Your task to perform on an android device: Open the calendar app, open the side menu, and click the "Day" option Image 0: 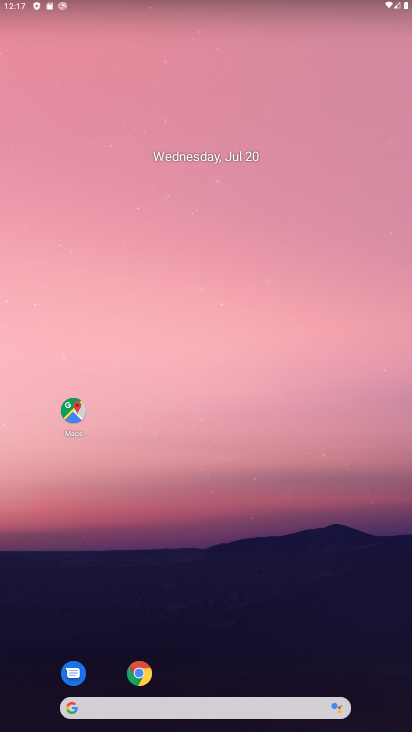
Step 0: drag from (201, 123) to (216, 52)
Your task to perform on an android device: Open the calendar app, open the side menu, and click the "Day" option Image 1: 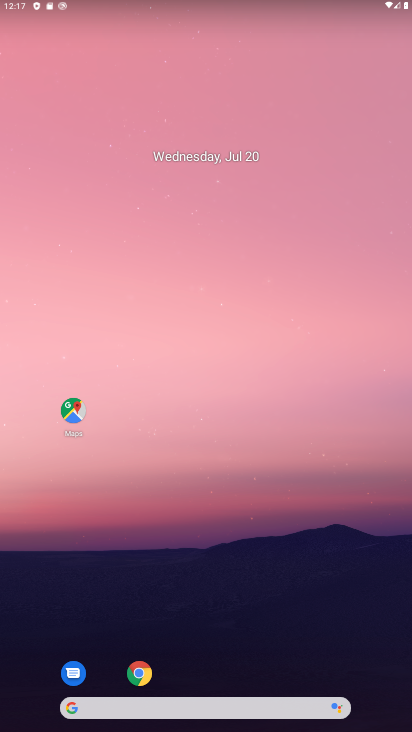
Step 1: drag from (200, 618) to (52, 4)
Your task to perform on an android device: Open the calendar app, open the side menu, and click the "Day" option Image 2: 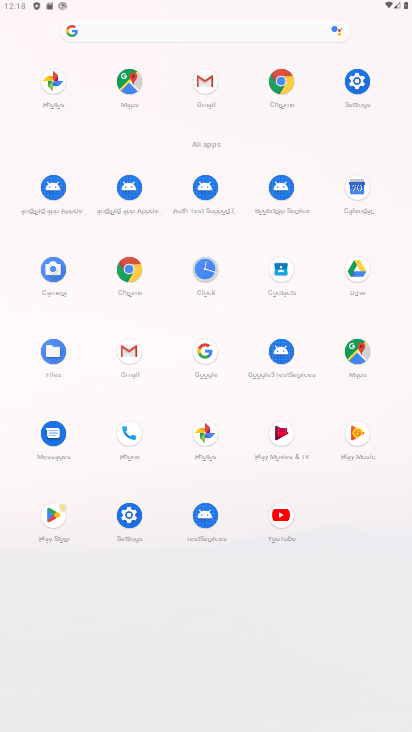
Step 2: click (356, 198)
Your task to perform on an android device: Open the calendar app, open the side menu, and click the "Day" option Image 3: 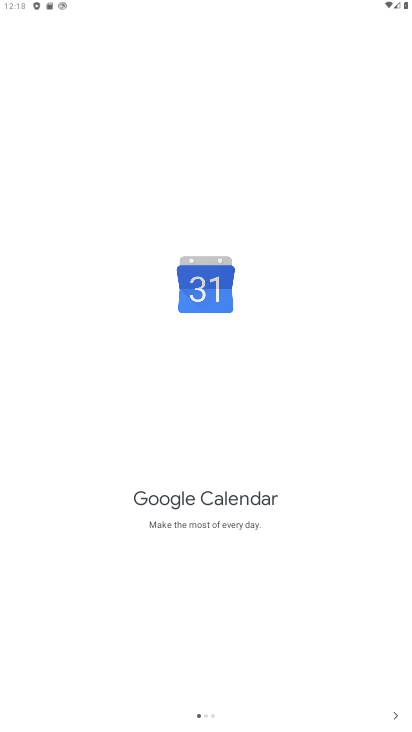
Step 3: click (393, 711)
Your task to perform on an android device: Open the calendar app, open the side menu, and click the "Day" option Image 4: 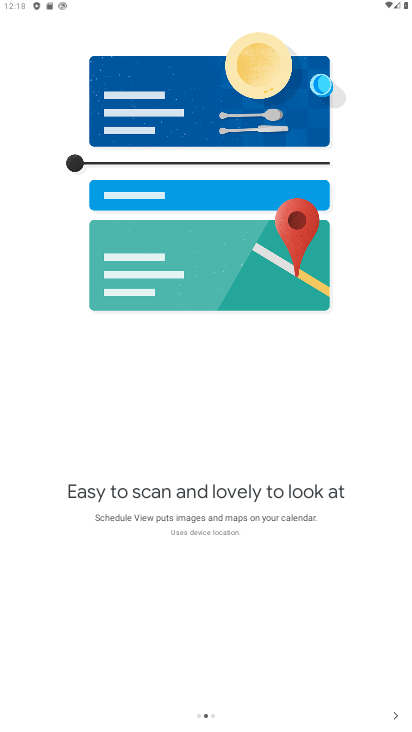
Step 4: click (393, 716)
Your task to perform on an android device: Open the calendar app, open the side menu, and click the "Day" option Image 5: 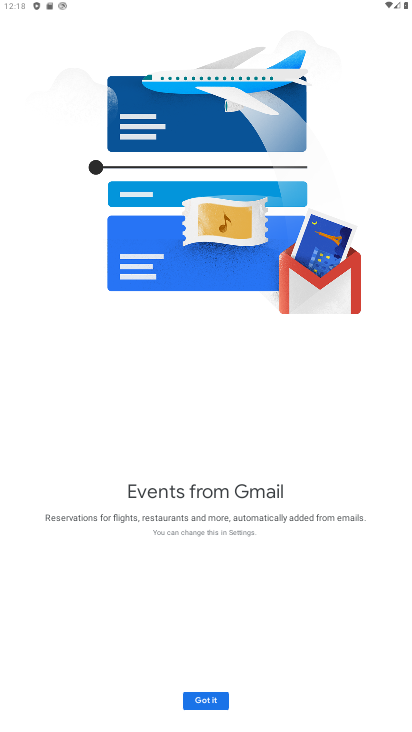
Step 5: click (195, 700)
Your task to perform on an android device: Open the calendar app, open the side menu, and click the "Day" option Image 6: 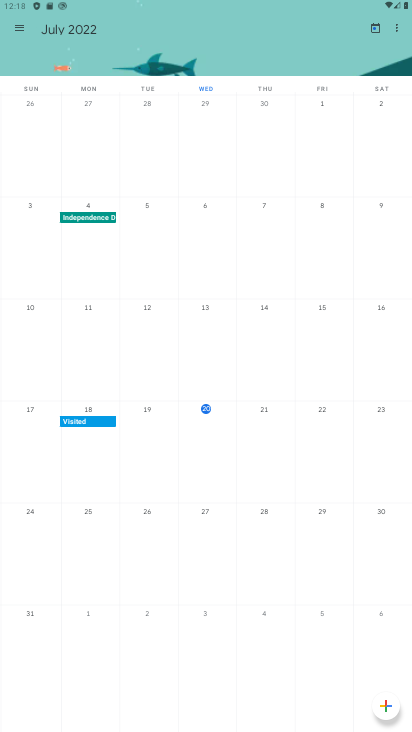
Step 6: click (19, 24)
Your task to perform on an android device: Open the calendar app, open the side menu, and click the "Day" option Image 7: 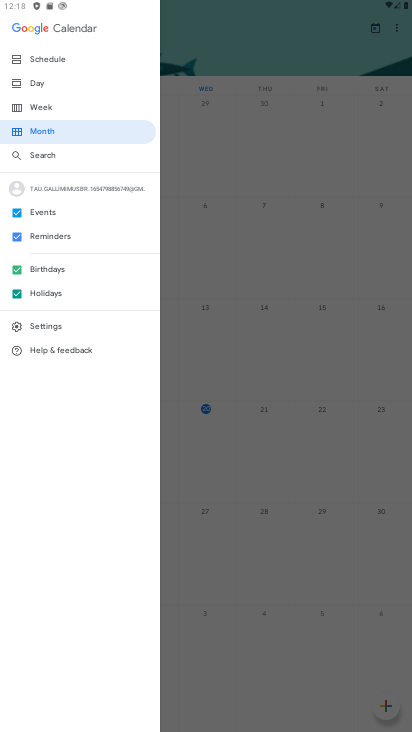
Step 7: click (42, 85)
Your task to perform on an android device: Open the calendar app, open the side menu, and click the "Day" option Image 8: 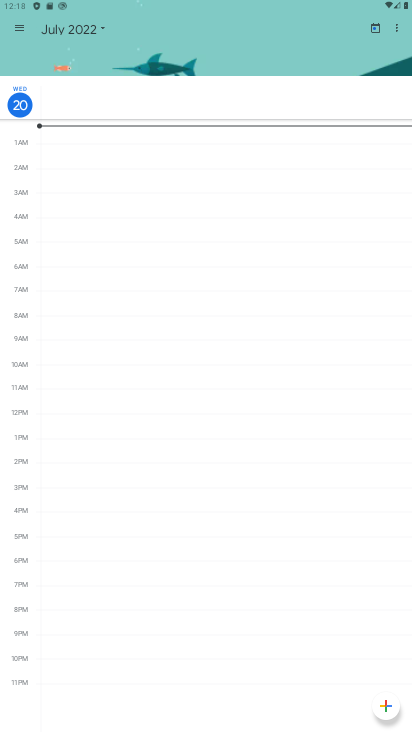
Step 8: task complete